Your task to perform on an android device: What's the weather going to be this weekend? Image 0: 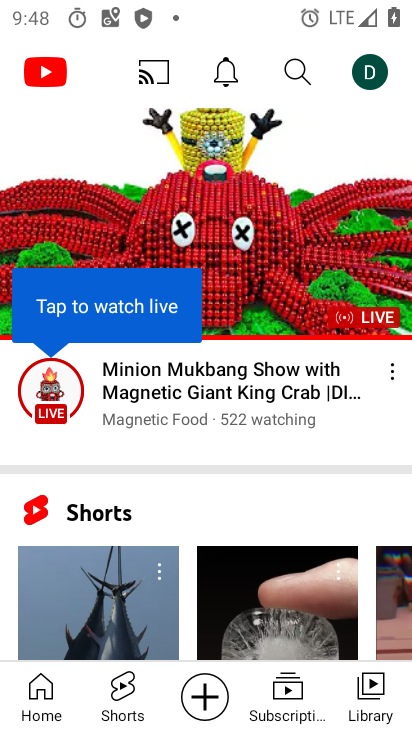
Step 0: press back button
Your task to perform on an android device: What's the weather going to be this weekend? Image 1: 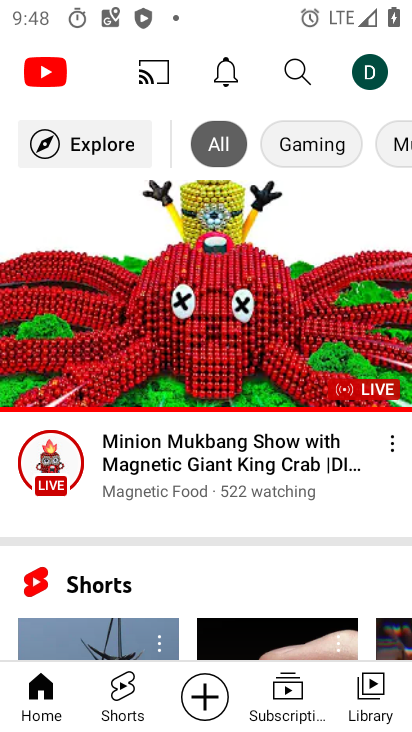
Step 1: press back button
Your task to perform on an android device: What's the weather going to be this weekend? Image 2: 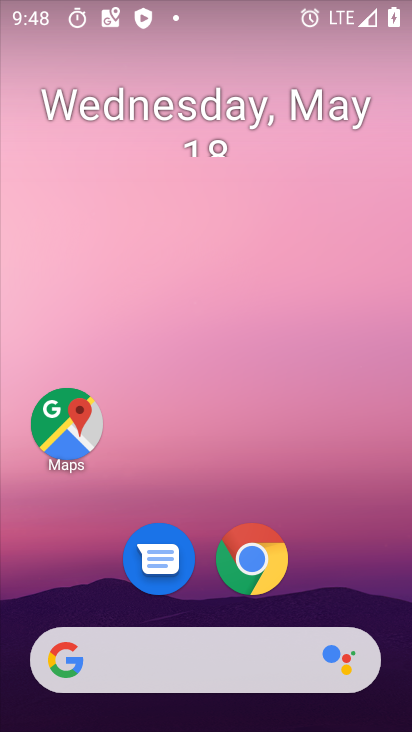
Step 2: drag from (335, 471) to (274, 45)
Your task to perform on an android device: What's the weather going to be this weekend? Image 3: 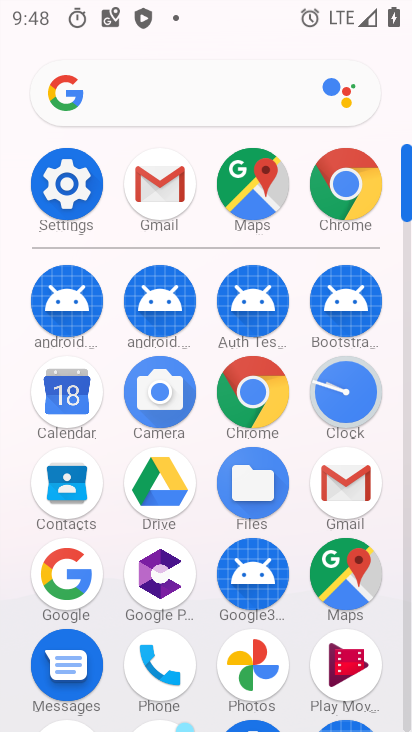
Step 3: drag from (24, 525) to (28, 247)
Your task to perform on an android device: What's the weather going to be this weekend? Image 4: 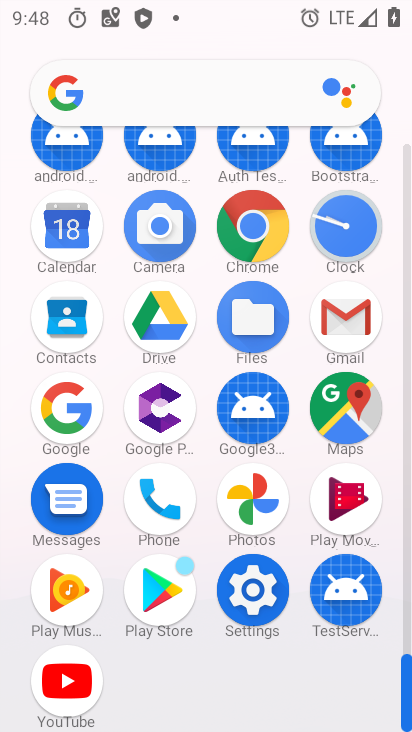
Step 4: click (251, 223)
Your task to perform on an android device: What's the weather going to be this weekend? Image 5: 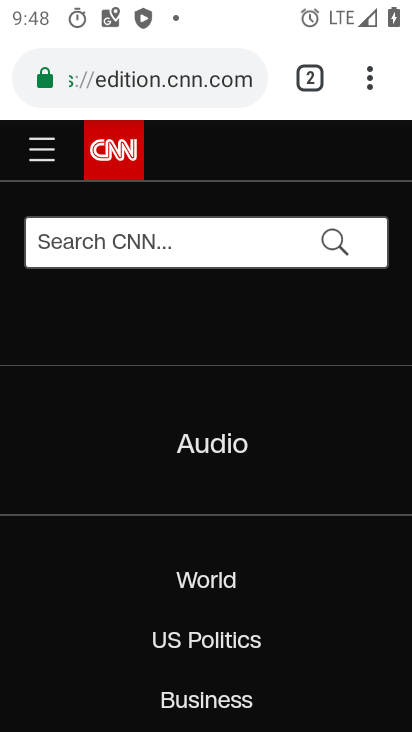
Step 5: click (174, 79)
Your task to perform on an android device: What's the weather going to be this weekend? Image 6: 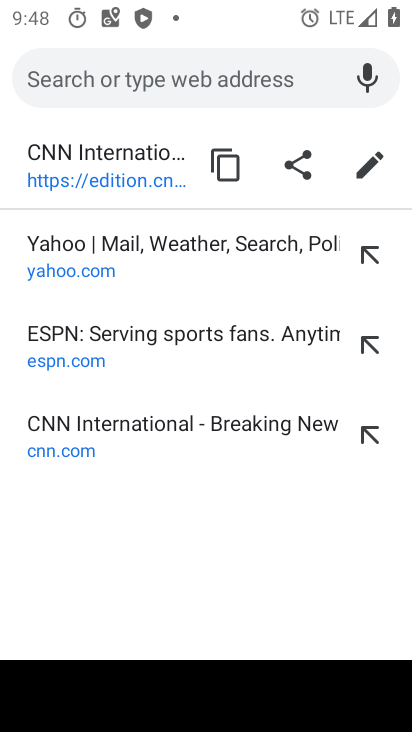
Step 6: type "What's the weather going to be this weekend?"
Your task to perform on an android device: What's the weather going to be this weekend? Image 7: 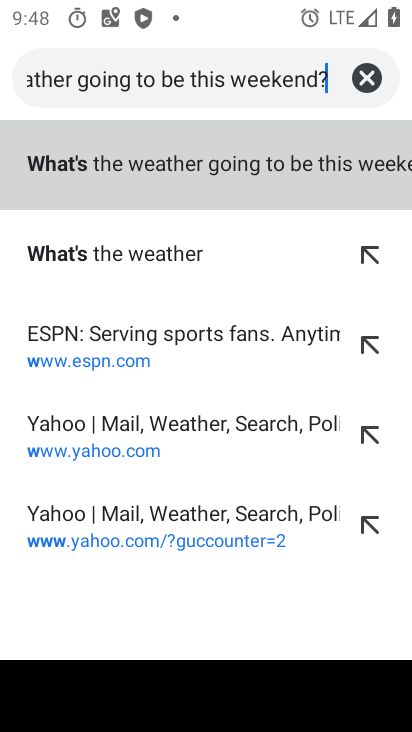
Step 7: type ""
Your task to perform on an android device: What's the weather going to be this weekend? Image 8: 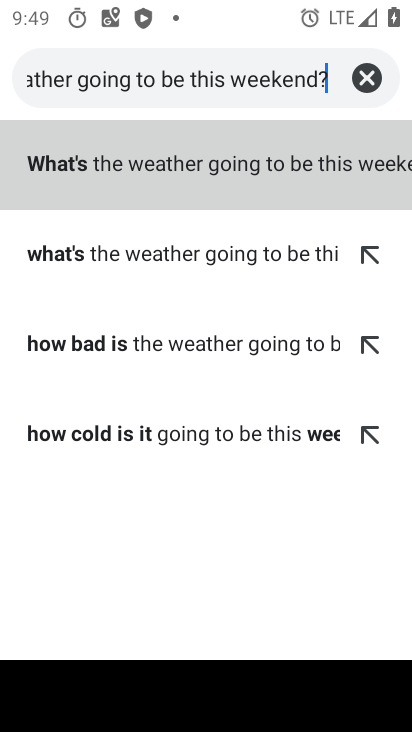
Step 8: click (115, 166)
Your task to perform on an android device: What's the weather going to be this weekend? Image 9: 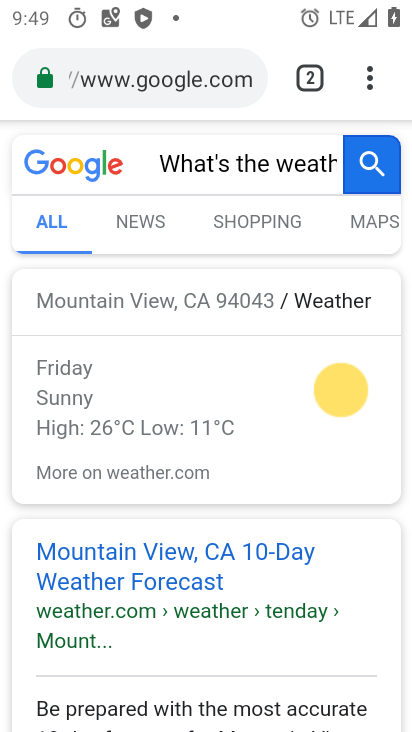
Step 9: task complete